Your task to perform on an android device: Check the news Image 0: 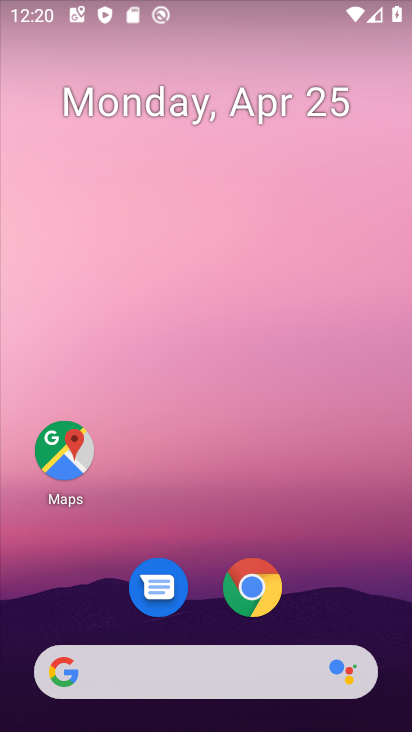
Step 0: drag from (183, 87) to (184, 40)
Your task to perform on an android device: Check the news Image 1: 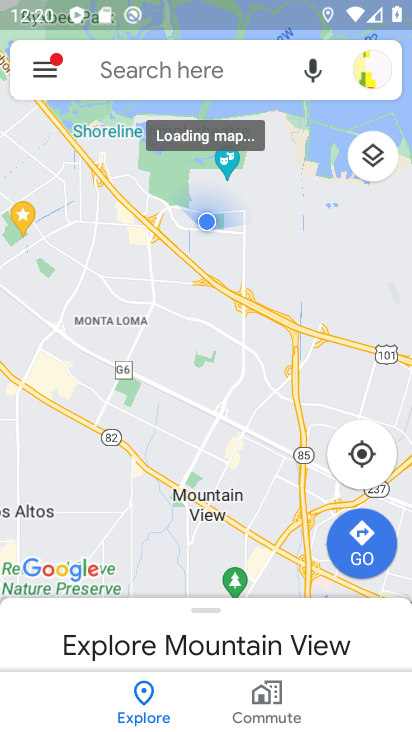
Step 1: press home button
Your task to perform on an android device: Check the news Image 2: 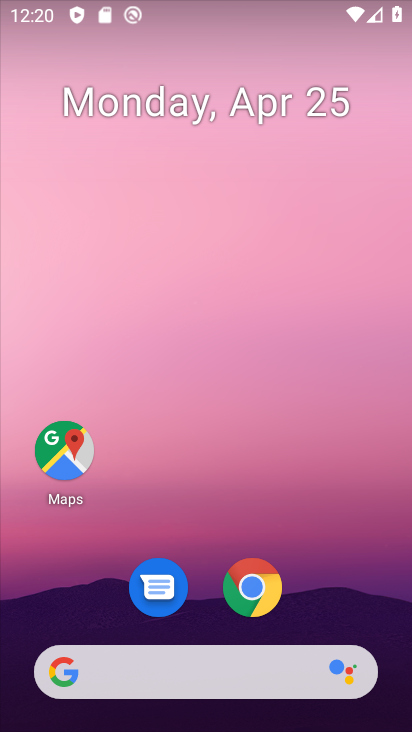
Step 2: click (274, 586)
Your task to perform on an android device: Check the news Image 3: 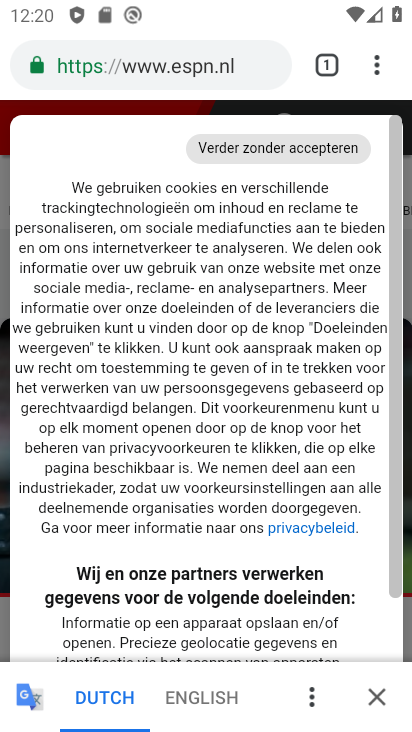
Step 3: click (213, 69)
Your task to perform on an android device: Check the news Image 4: 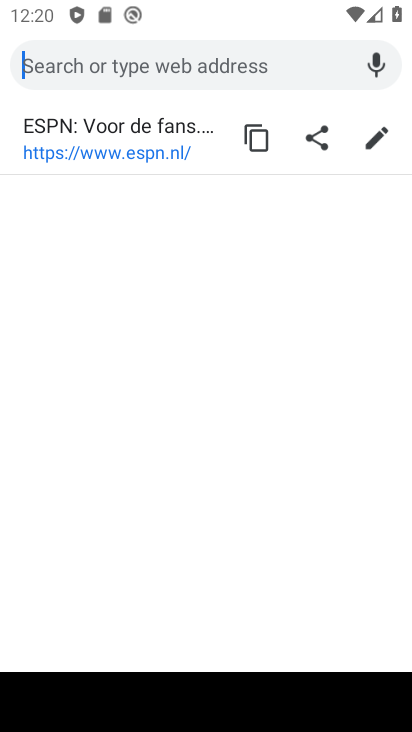
Step 4: type "news"
Your task to perform on an android device: Check the news Image 5: 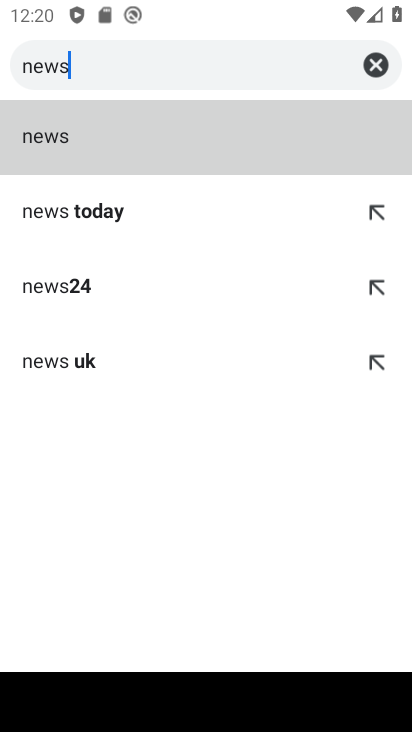
Step 5: click (52, 145)
Your task to perform on an android device: Check the news Image 6: 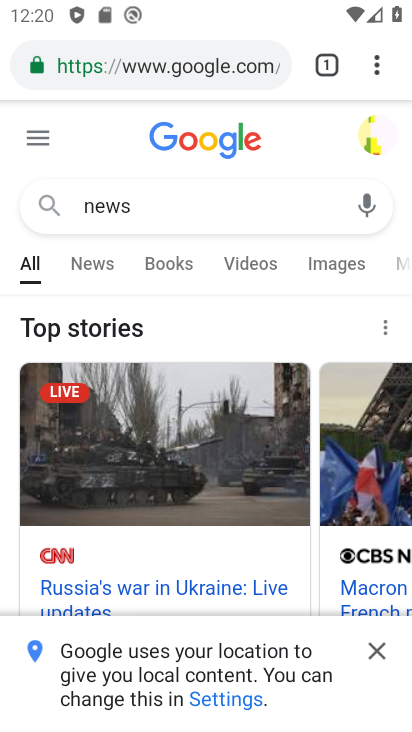
Step 6: task complete